Your task to perform on an android device: What is the recent news? Image 0: 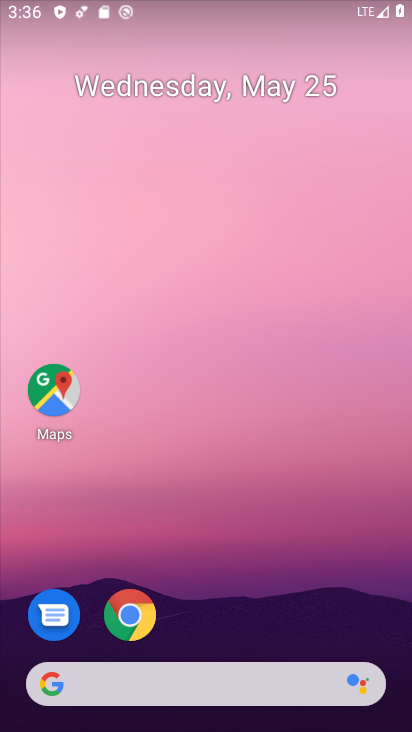
Step 0: drag from (285, 338) to (223, 19)
Your task to perform on an android device: What is the recent news? Image 1: 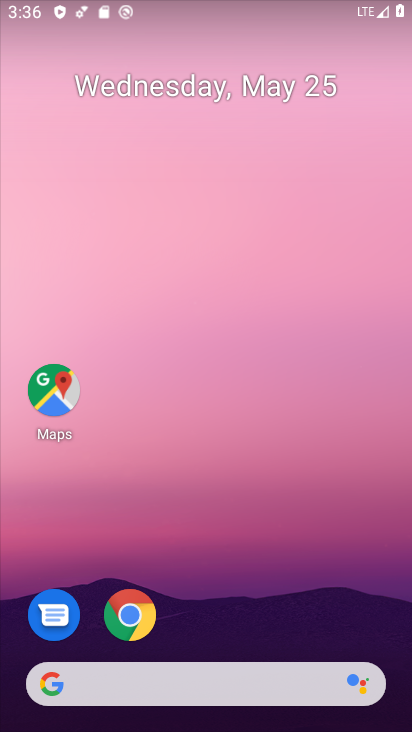
Step 1: drag from (292, 551) to (173, 9)
Your task to perform on an android device: What is the recent news? Image 2: 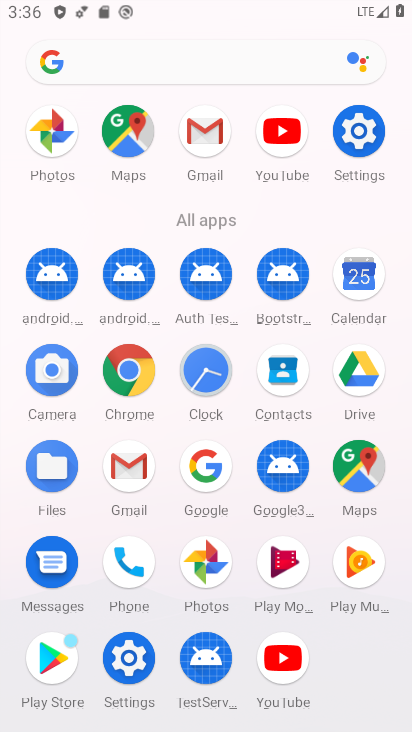
Step 2: click (200, 477)
Your task to perform on an android device: What is the recent news? Image 3: 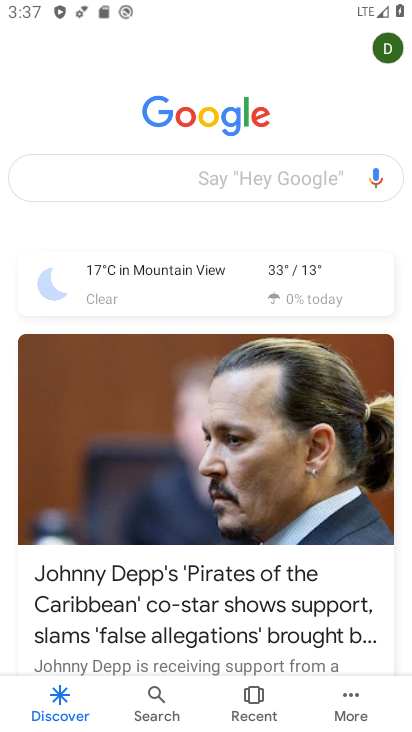
Step 3: click (188, 167)
Your task to perform on an android device: What is the recent news? Image 4: 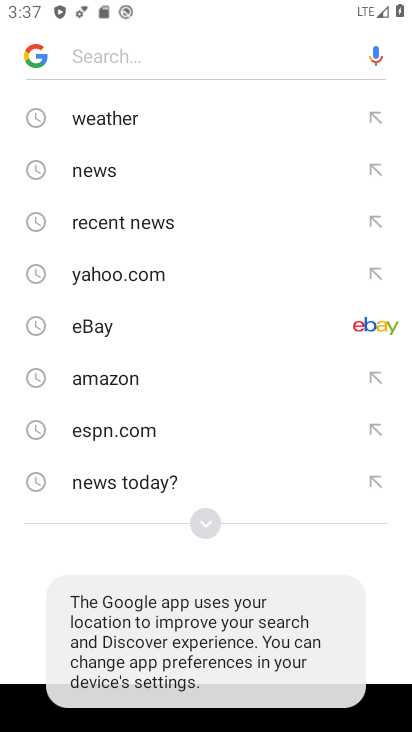
Step 4: click (142, 218)
Your task to perform on an android device: What is the recent news? Image 5: 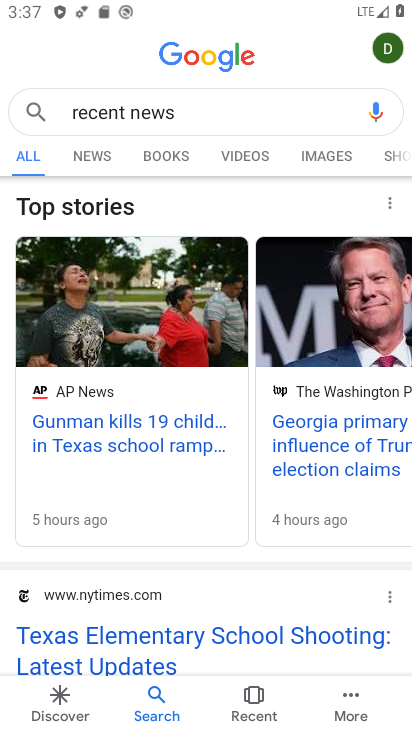
Step 5: task complete